Your task to perform on an android device: turn vacation reply on in the gmail app Image 0: 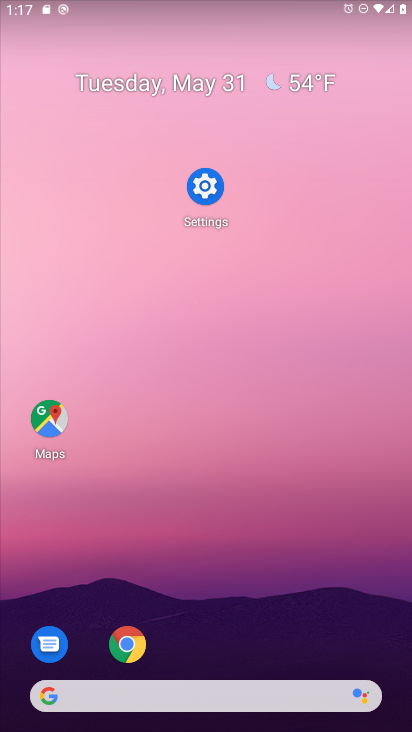
Step 0: drag from (228, 635) to (240, 64)
Your task to perform on an android device: turn vacation reply on in the gmail app Image 1: 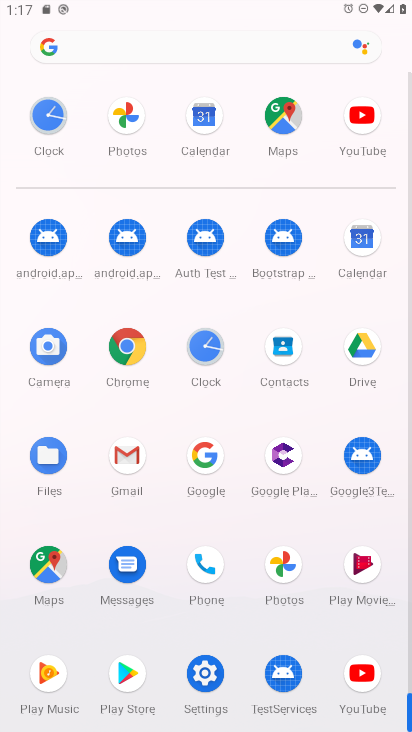
Step 1: click (121, 452)
Your task to perform on an android device: turn vacation reply on in the gmail app Image 2: 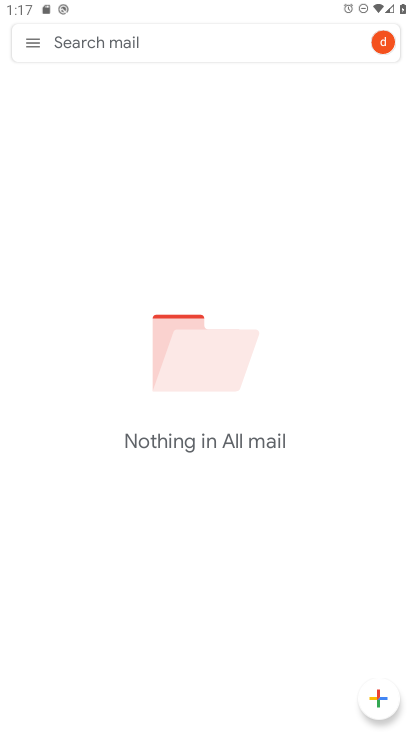
Step 2: click (29, 43)
Your task to perform on an android device: turn vacation reply on in the gmail app Image 3: 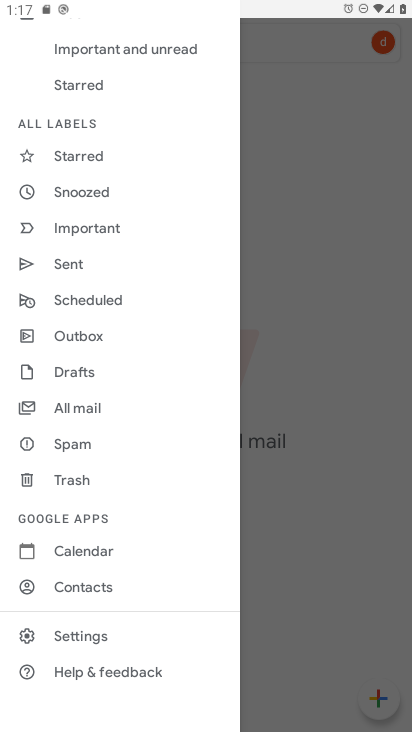
Step 3: click (92, 636)
Your task to perform on an android device: turn vacation reply on in the gmail app Image 4: 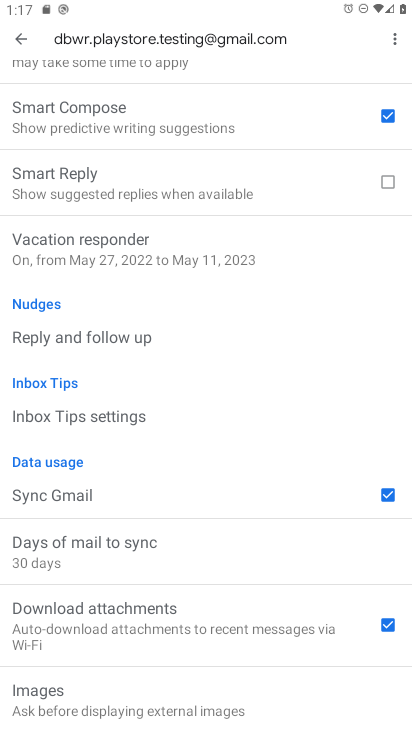
Step 4: click (103, 243)
Your task to perform on an android device: turn vacation reply on in the gmail app Image 5: 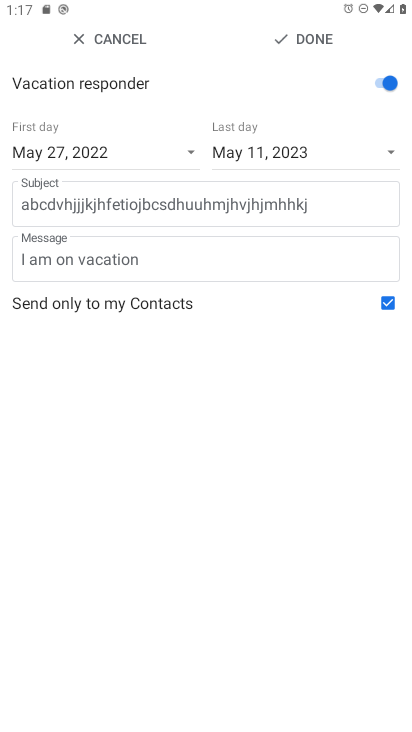
Step 5: task complete